Your task to perform on an android device: find snoozed emails in the gmail app Image 0: 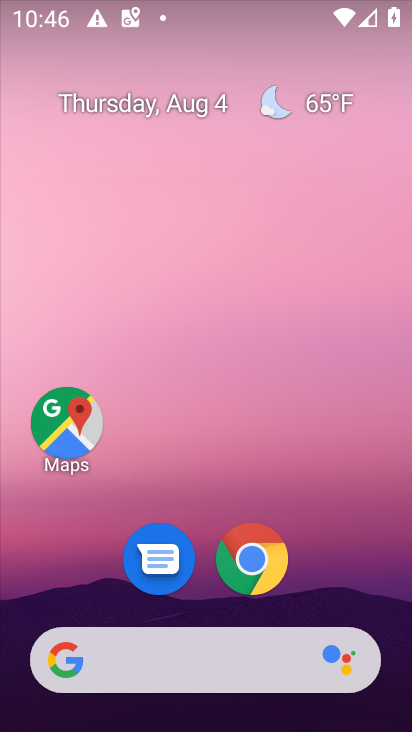
Step 0: drag from (223, 671) to (236, 39)
Your task to perform on an android device: find snoozed emails in the gmail app Image 1: 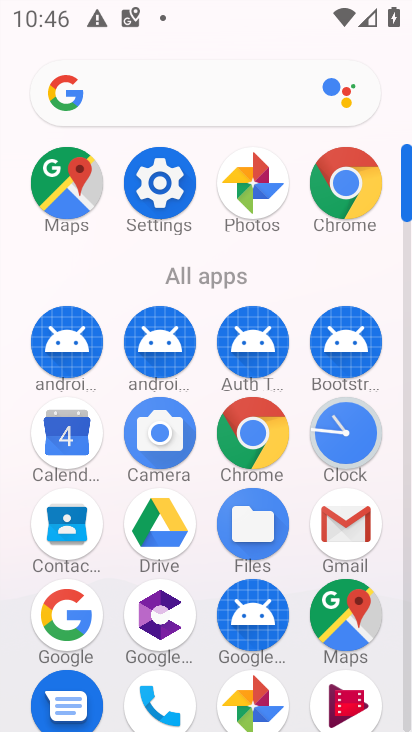
Step 1: click (366, 520)
Your task to perform on an android device: find snoozed emails in the gmail app Image 2: 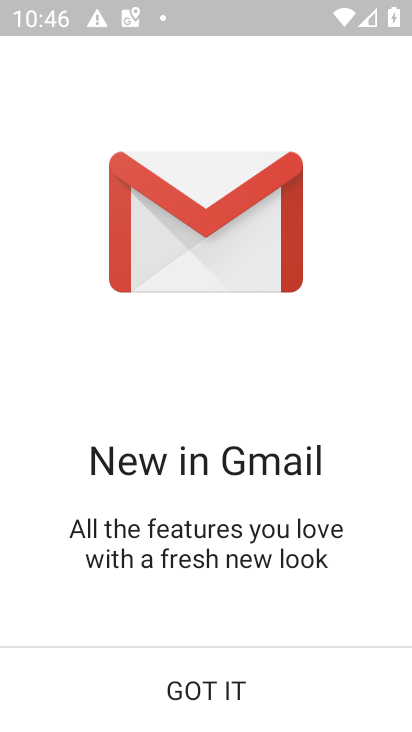
Step 2: click (227, 676)
Your task to perform on an android device: find snoozed emails in the gmail app Image 3: 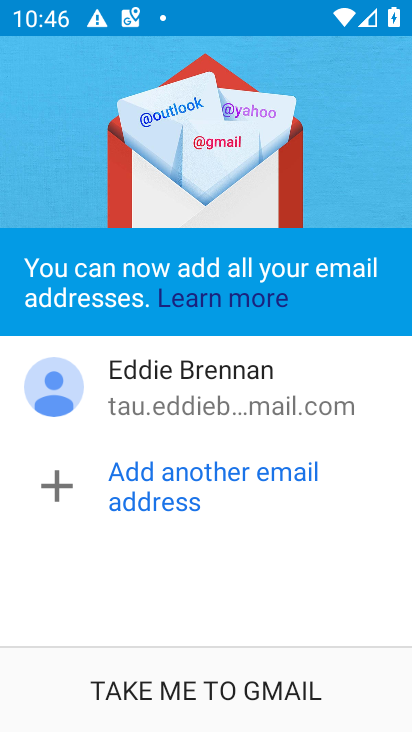
Step 3: click (265, 678)
Your task to perform on an android device: find snoozed emails in the gmail app Image 4: 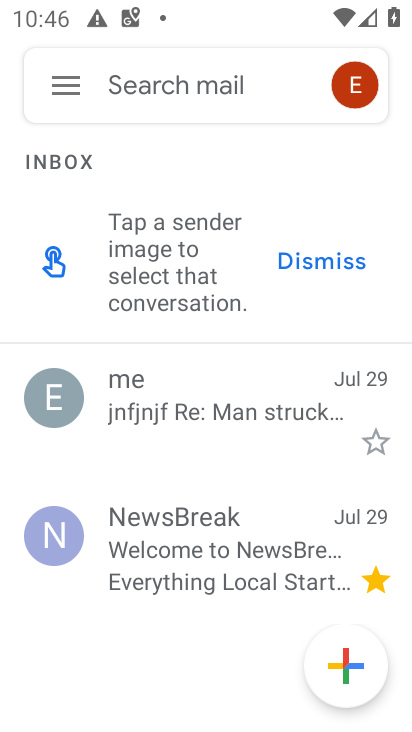
Step 4: click (69, 111)
Your task to perform on an android device: find snoozed emails in the gmail app Image 5: 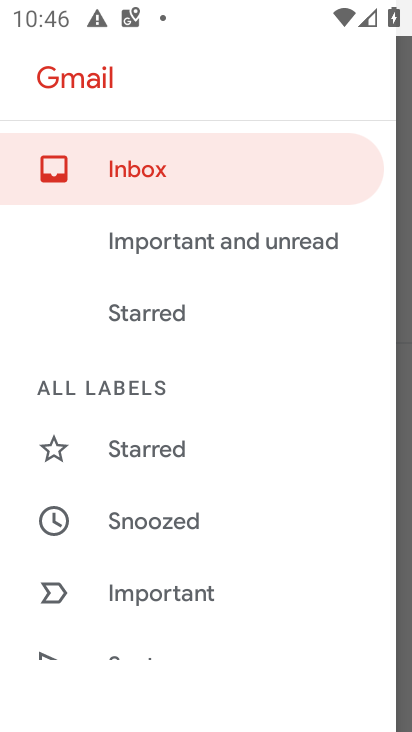
Step 5: click (185, 519)
Your task to perform on an android device: find snoozed emails in the gmail app Image 6: 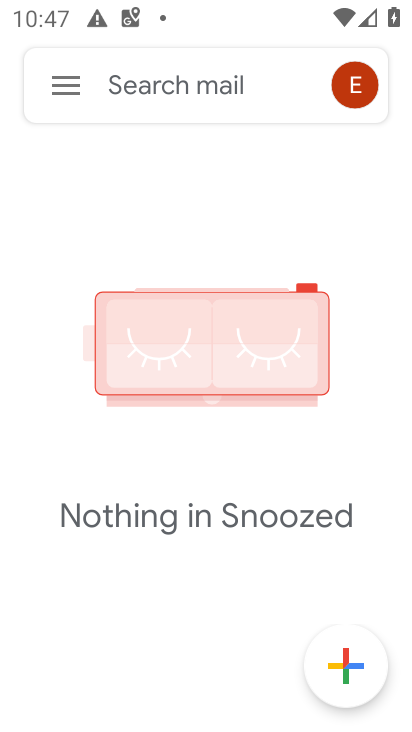
Step 6: task complete